Your task to perform on an android device: toggle pop-ups in chrome Image 0: 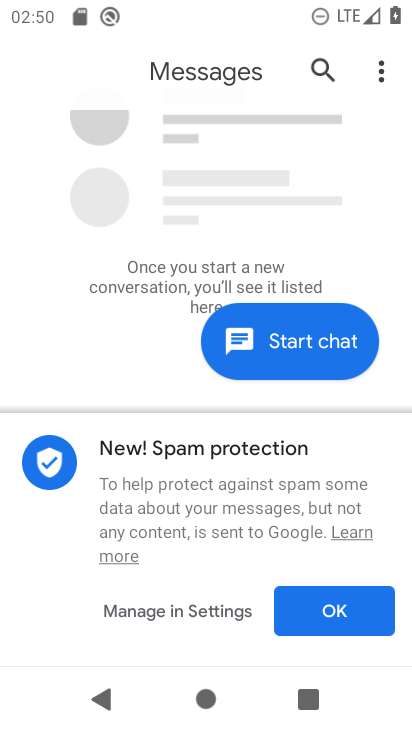
Step 0: press home button
Your task to perform on an android device: toggle pop-ups in chrome Image 1: 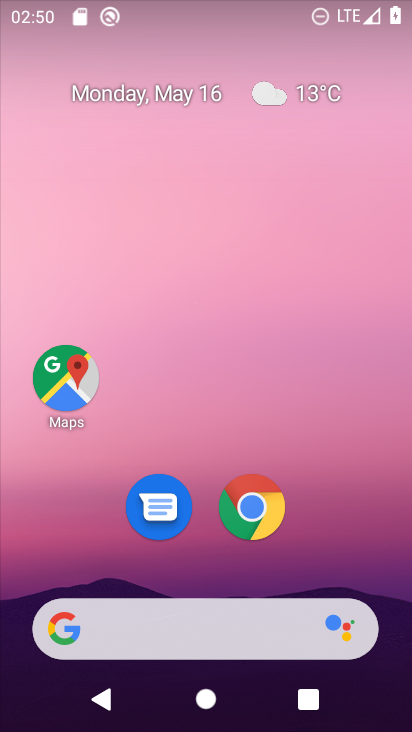
Step 1: click (256, 508)
Your task to perform on an android device: toggle pop-ups in chrome Image 2: 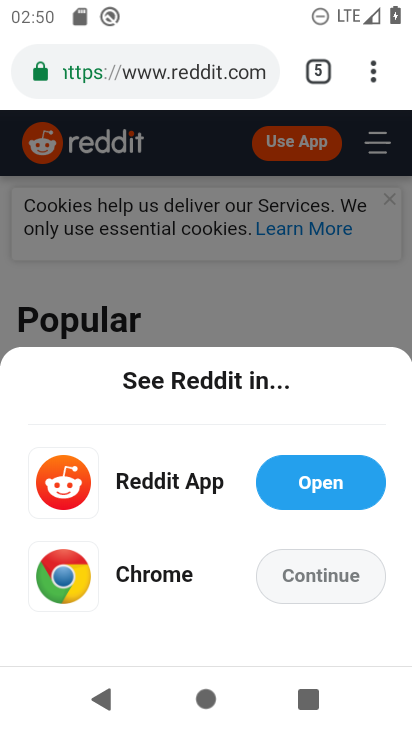
Step 2: click (371, 63)
Your task to perform on an android device: toggle pop-ups in chrome Image 3: 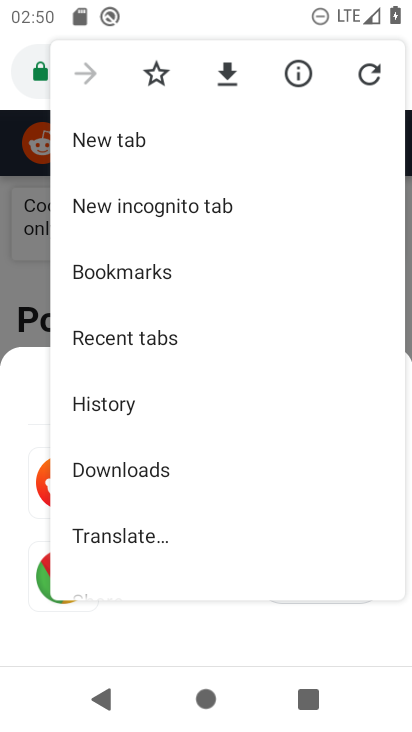
Step 3: drag from (237, 496) to (217, 135)
Your task to perform on an android device: toggle pop-ups in chrome Image 4: 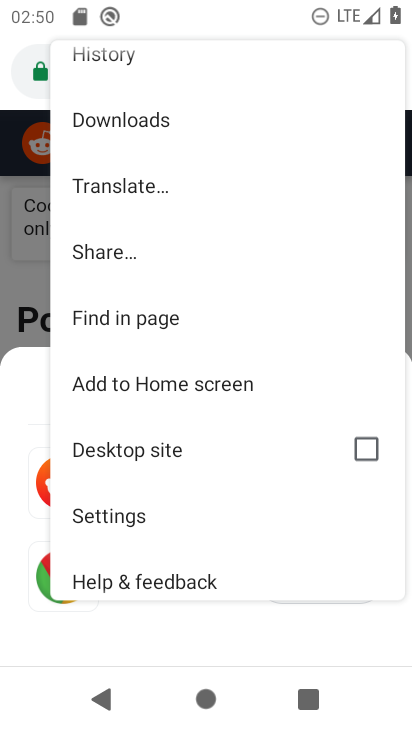
Step 4: click (142, 500)
Your task to perform on an android device: toggle pop-ups in chrome Image 5: 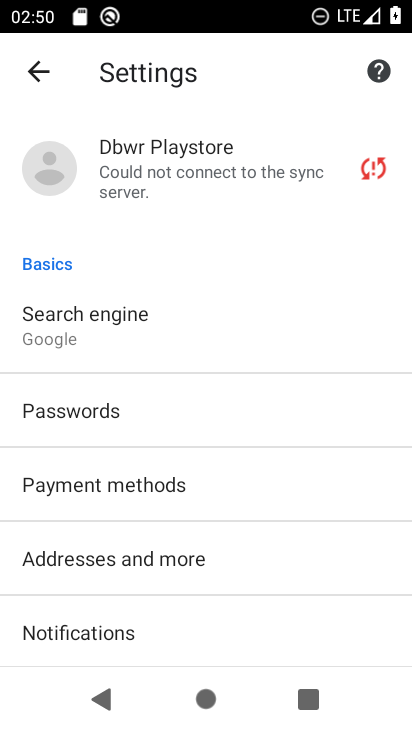
Step 5: drag from (218, 516) to (195, 216)
Your task to perform on an android device: toggle pop-ups in chrome Image 6: 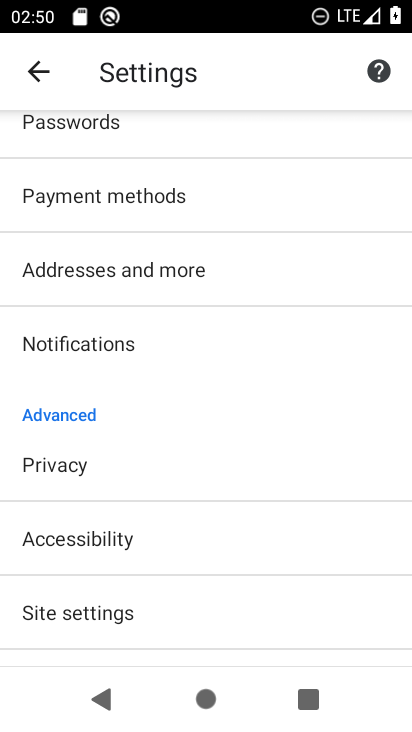
Step 6: click (150, 597)
Your task to perform on an android device: toggle pop-ups in chrome Image 7: 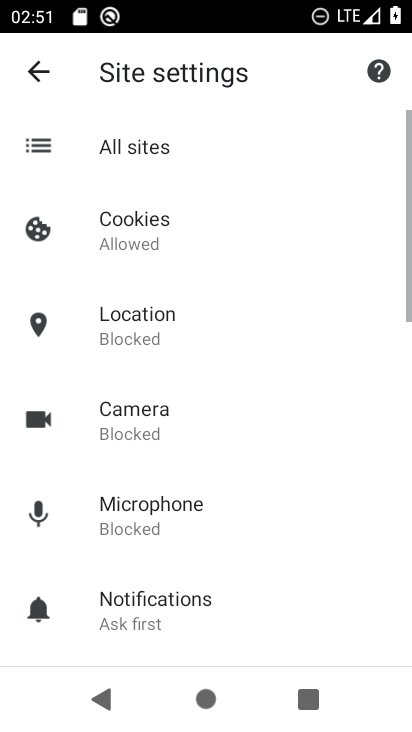
Step 7: drag from (238, 551) to (213, 280)
Your task to perform on an android device: toggle pop-ups in chrome Image 8: 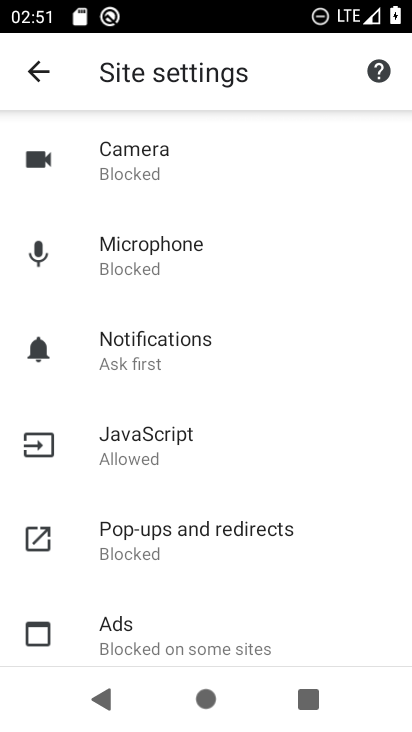
Step 8: click (251, 543)
Your task to perform on an android device: toggle pop-ups in chrome Image 9: 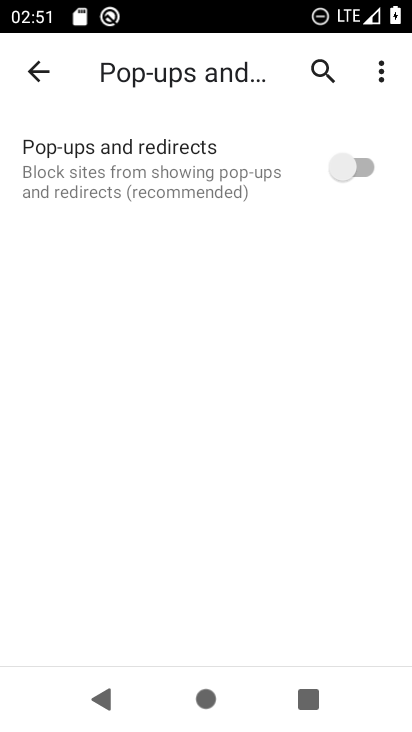
Step 9: click (351, 166)
Your task to perform on an android device: toggle pop-ups in chrome Image 10: 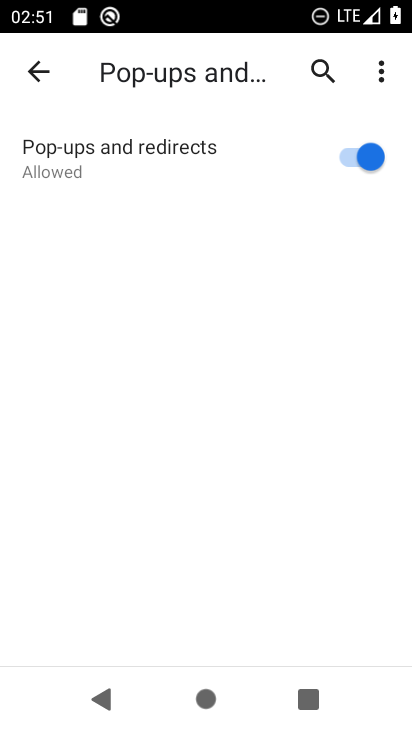
Step 10: task complete